Your task to perform on an android device: turn off priority inbox in the gmail app Image 0: 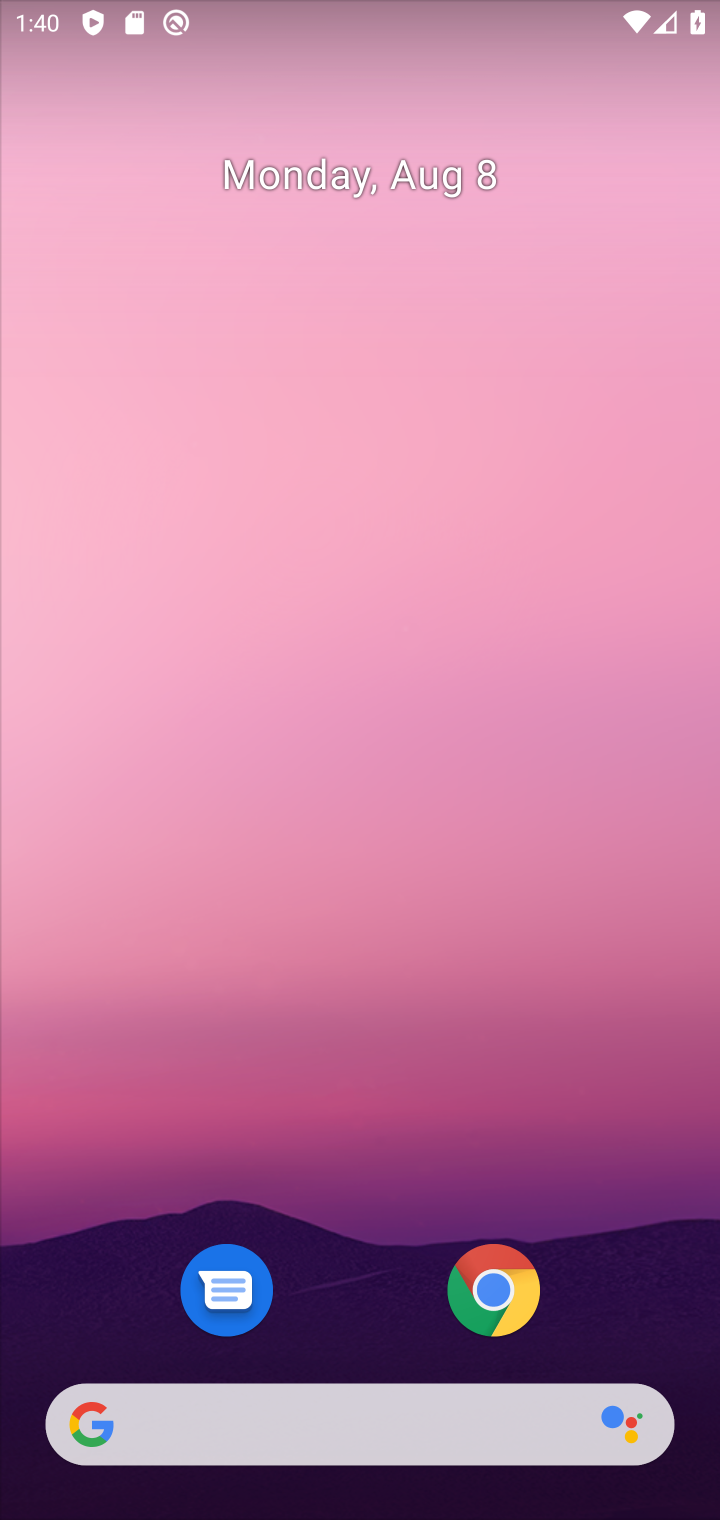
Step 0: drag from (389, 1423) to (618, 54)
Your task to perform on an android device: turn off priority inbox in the gmail app Image 1: 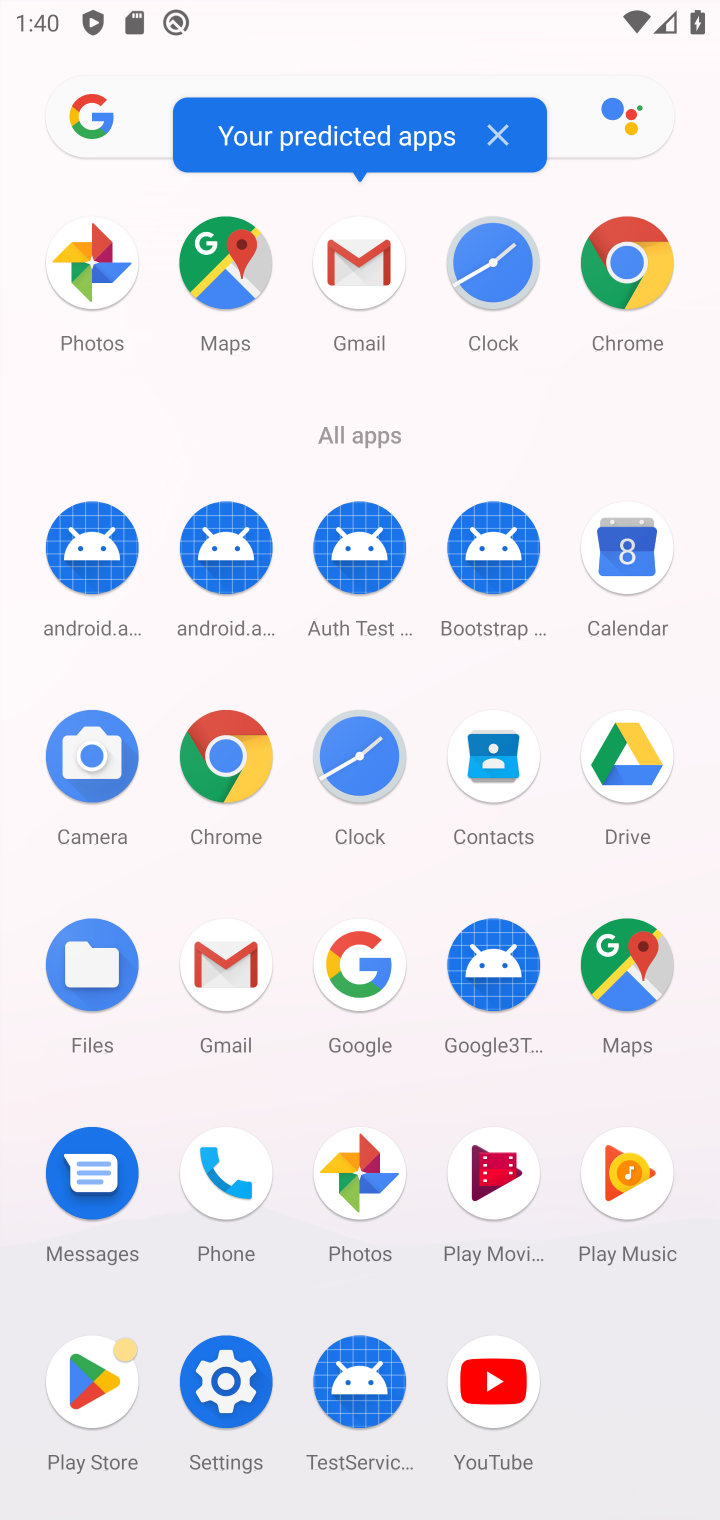
Step 1: click (364, 265)
Your task to perform on an android device: turn off priority inbox in the gmail app Image 2: 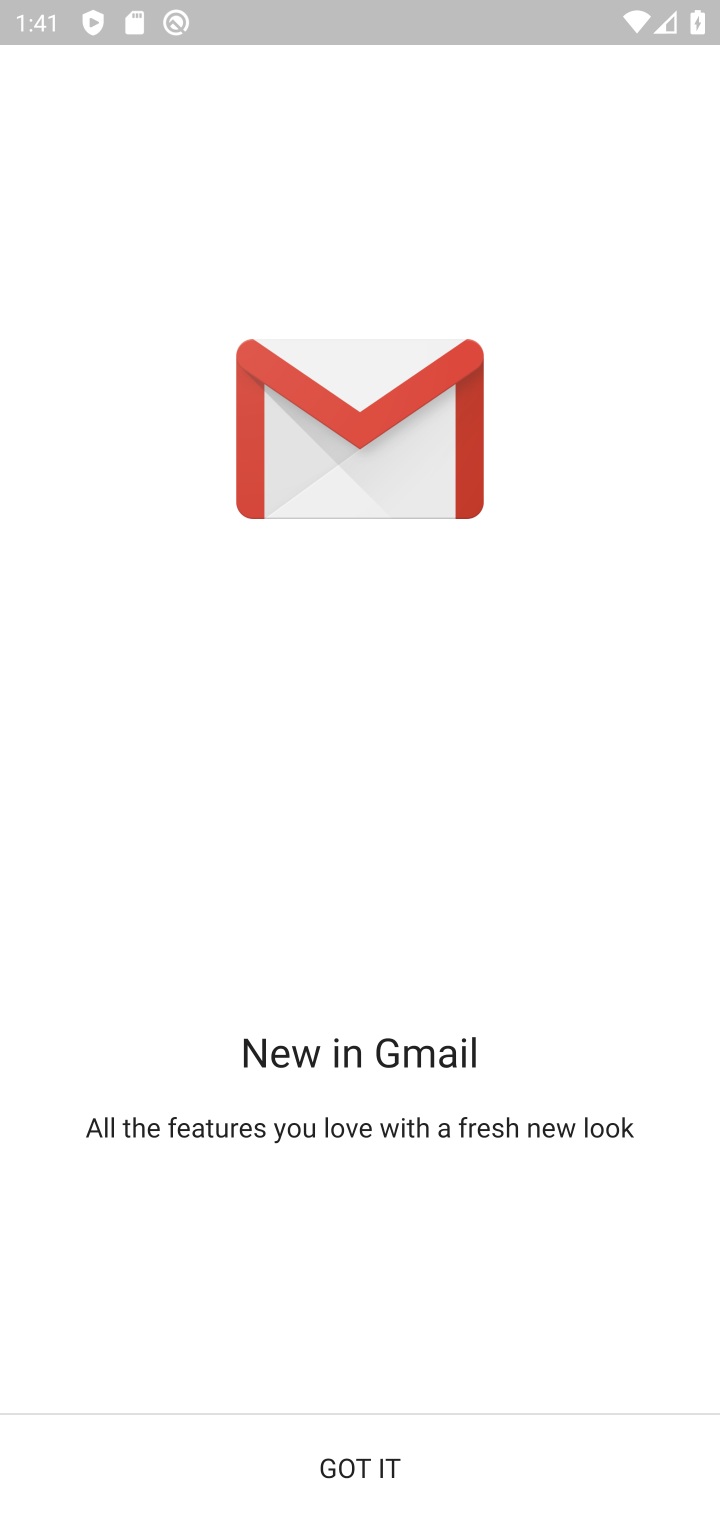
Step 2: click (366, 1464)
Your task to perform on an android device: turn off priority inbox in the gmail app Image 3: 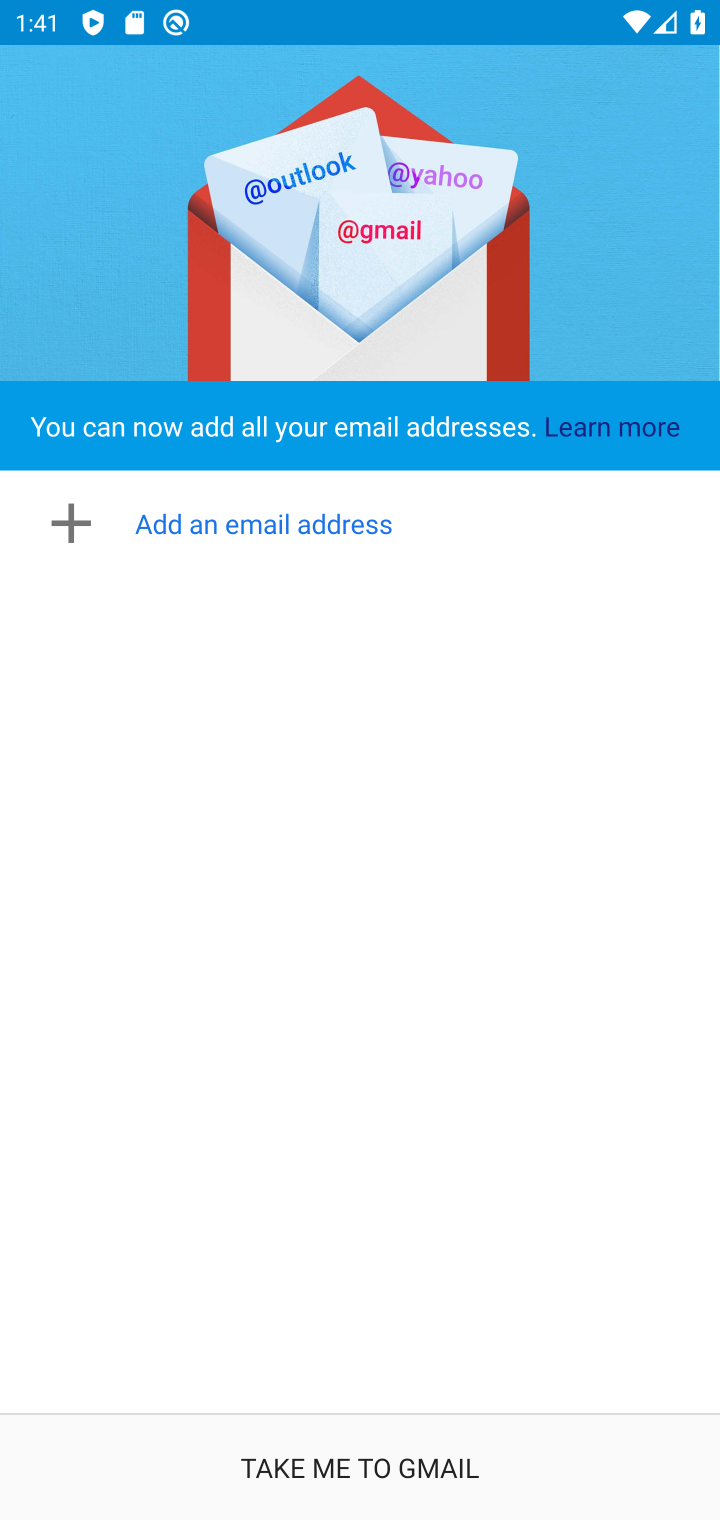
Step 3: click (366, 1464)
Your task to perform on an android device: turn off priority inbox in the gmail app Image 4: 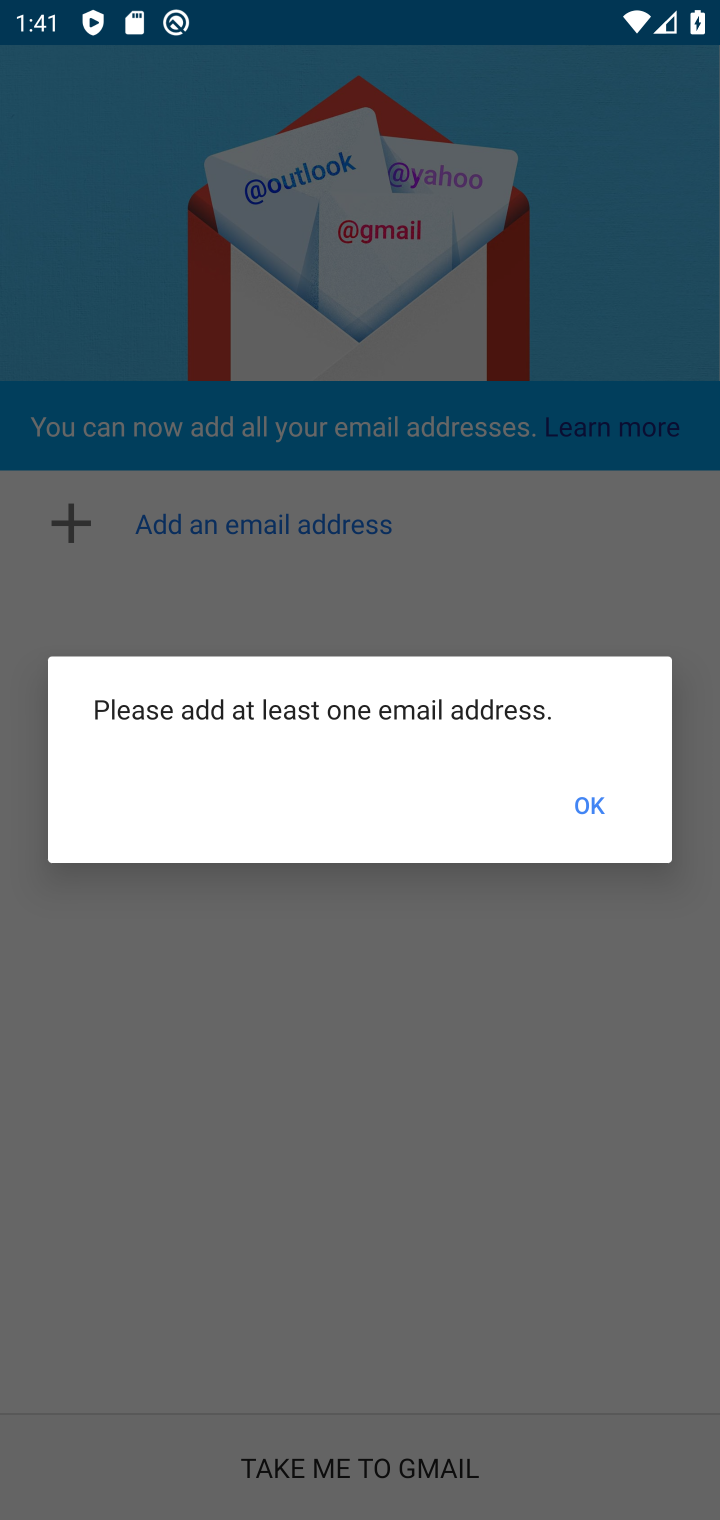
Step 4: click (591, 808)
Your task to perform on an android device: turn off priority inbox in the gmail app Image 5: 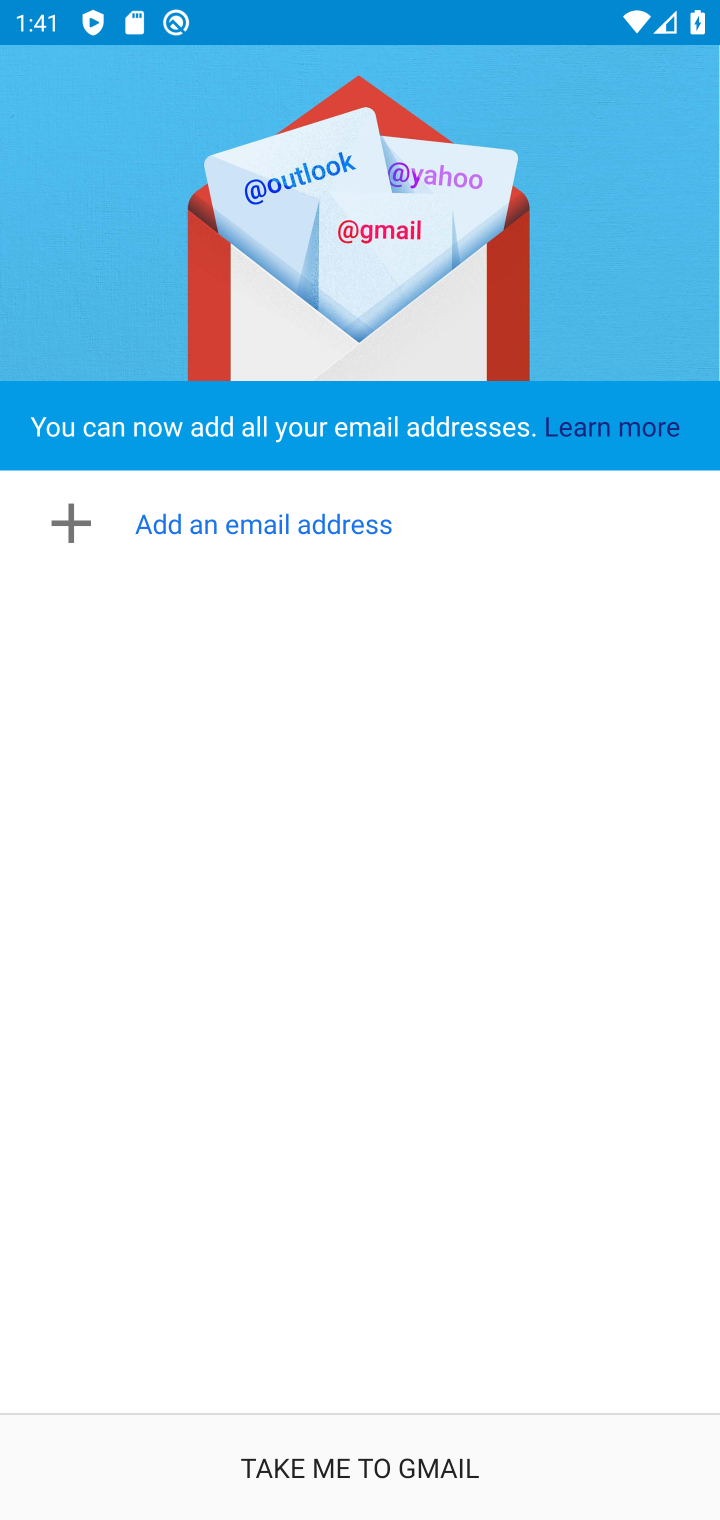
Step 5: task complete